Your task to perform on an android device: turn on airplane mode Image 0: 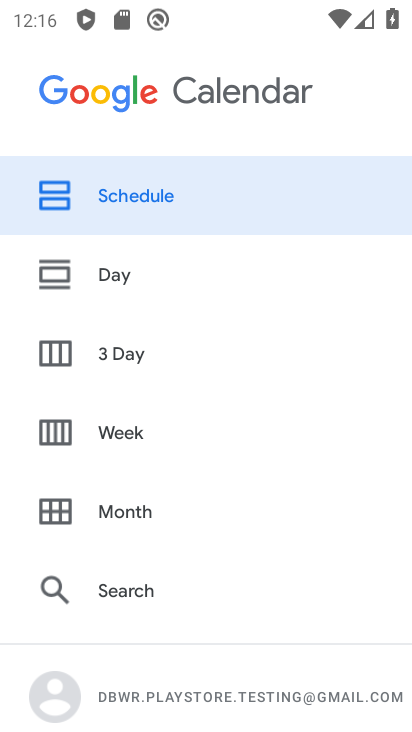
Step 0: press home button
Your task to perform on an android device: turn on airplane mode Image 1: 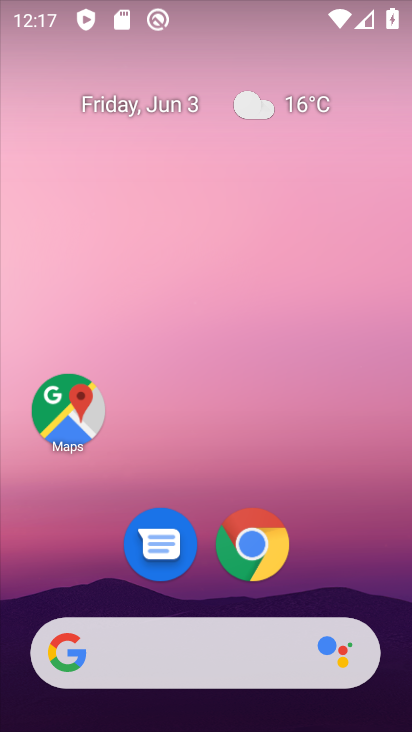
Step 1: drag from (334, 457) to (360, 47)
Your task to perform on an android device: turn on airplane mode Image 2: 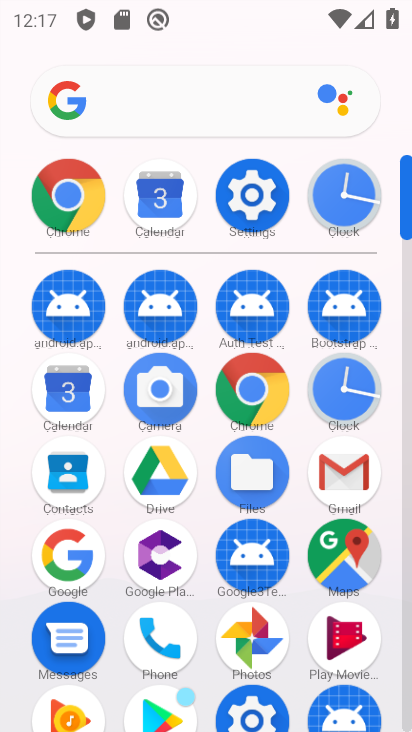
Step 2: click (254, 201)
Your task to perform on an android device: turn on airplane mode Image 3: 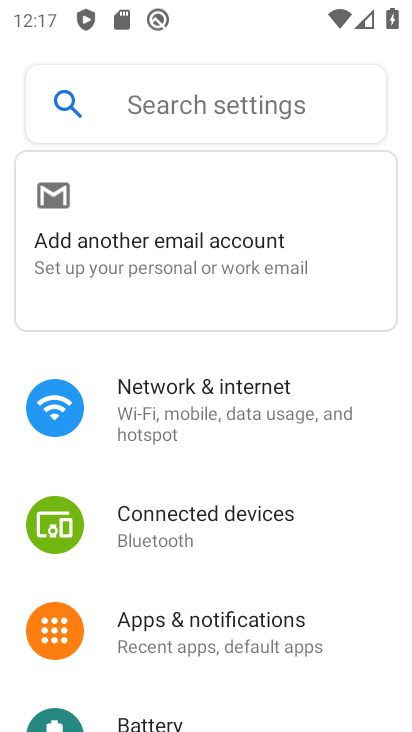
Step 3: click (284, 400)
Your task to perform on an android device: turn on airplane mode Image 4: 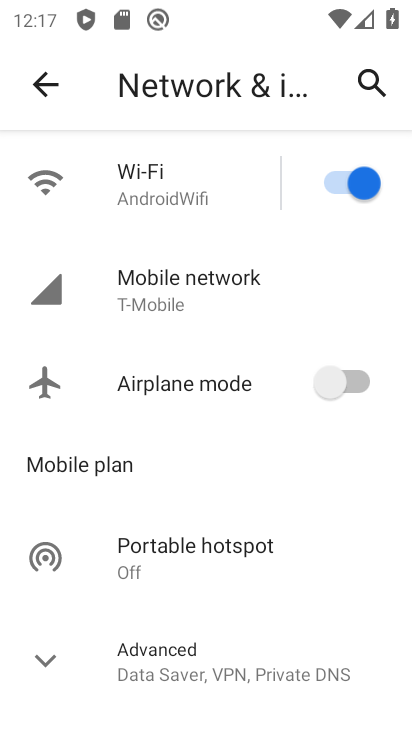
Step 4: click (363, 375)
Your task to perform on an android device: turn on airplane mode Image 5: 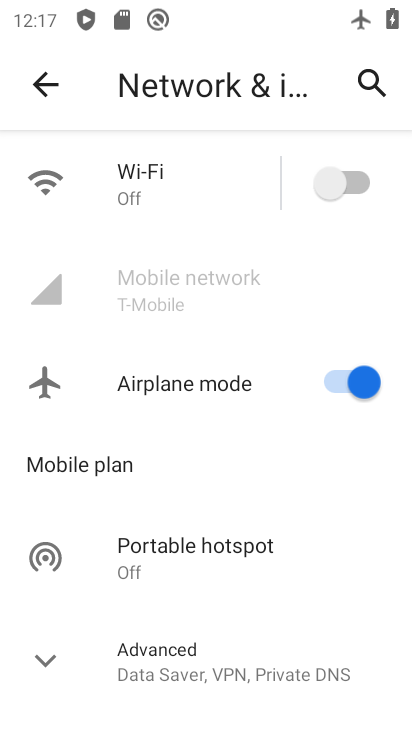
Step 5: task complete